Your task to perform on an android device: Open Maps and search for coffee Image 0: 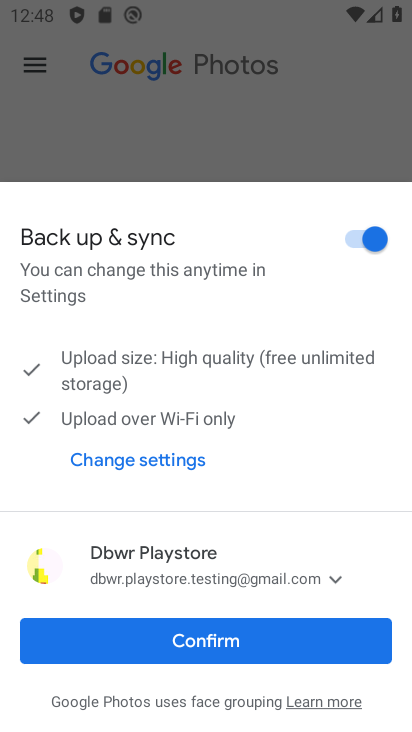
Step 0: press home button
Your task to perform on an android device: Open Maps and search for coffee Image 1: 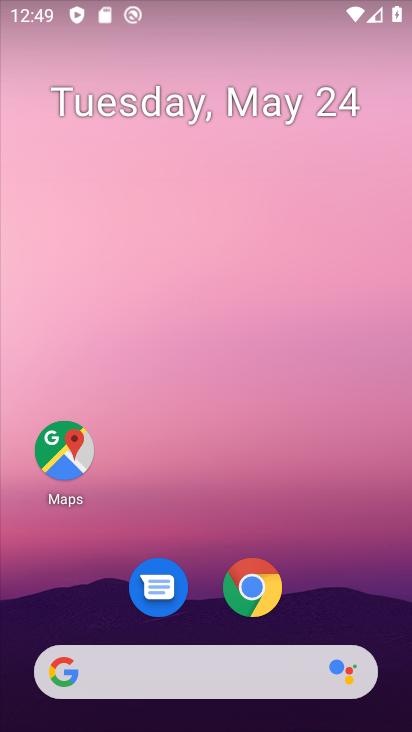
Step 1: click (72, 457)
Your task to perform on an android device: Open Maps and search for coffee Image 2: 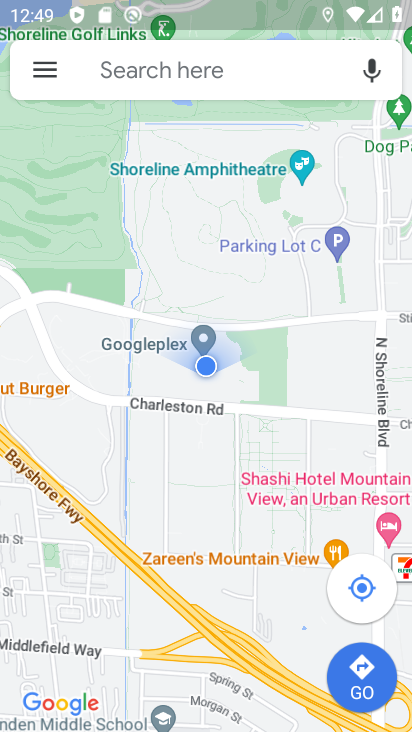
Step 2: click (141, 83)
Your task to perform on an android device: Open Maps and search for coffee Image 3: 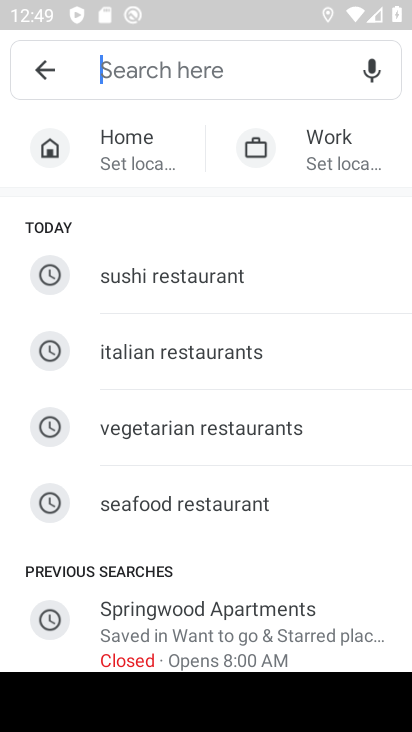
Step 3: type "coffee"
Your task to perform on an android device: Open Maps and search for coffee Image 4: 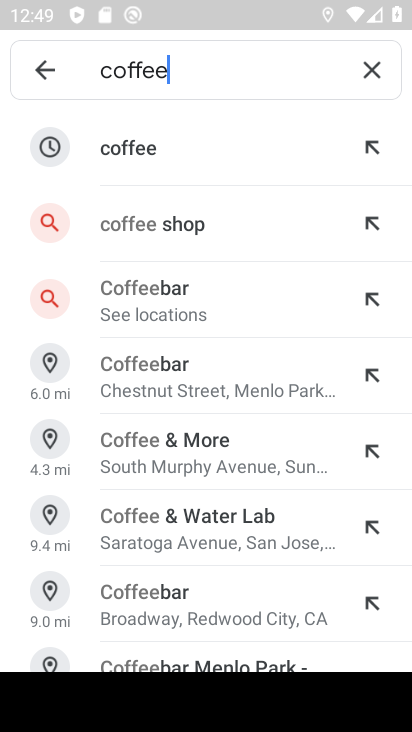
Step 4: click (163, 145)
Your task to perform on an android device: Open Maps and search for coffee Image 5: 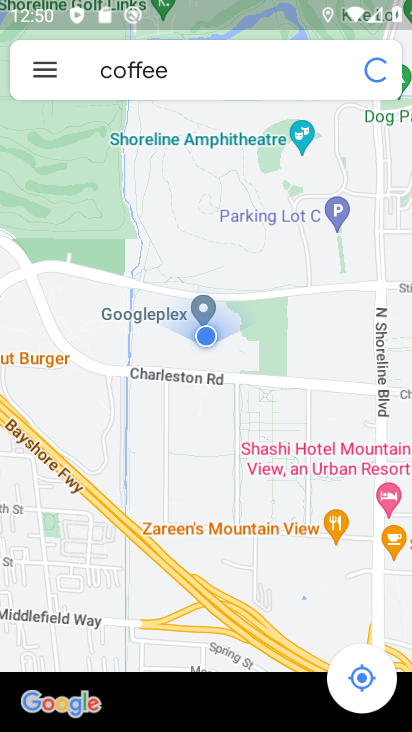
Step 5: task complete